Your task to perform on an android device: turn off notifications in google photos Image 0: 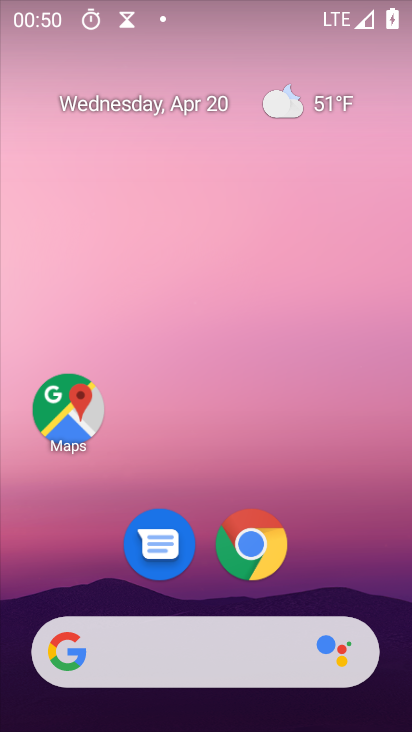
Step 0: drag from (309, 593) to (330, 77)
Your task to perform on an android device: turn off notifications in google photos Image 1: 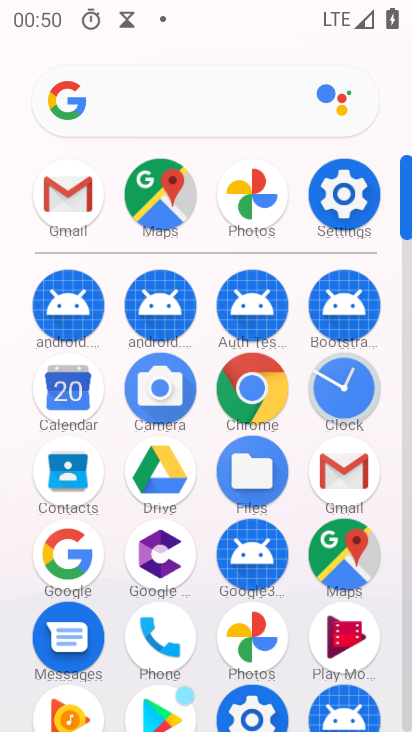
Step 1: click (265, 205)
Your task to perform on an android device: turn off notifications in google photos Image 2: 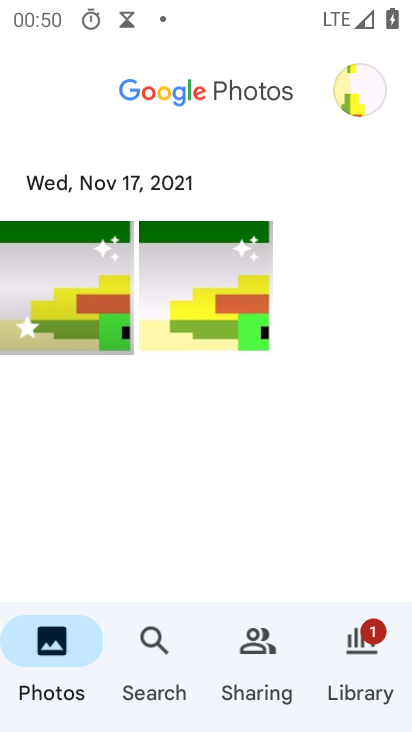
Step 2: click (344, 92)
Your task to perform on an android device: turn off notifications in google photos Image 3: 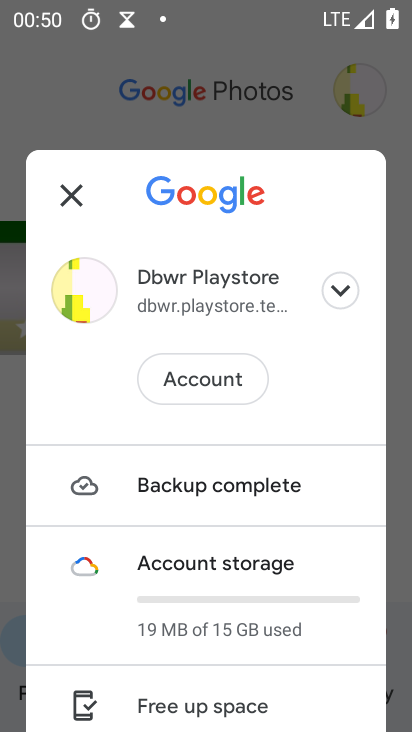
Step 3: drag from (230, 560) to (239, 335)
Your task to perform on an android device: turn off notifications in google photos Image 4: 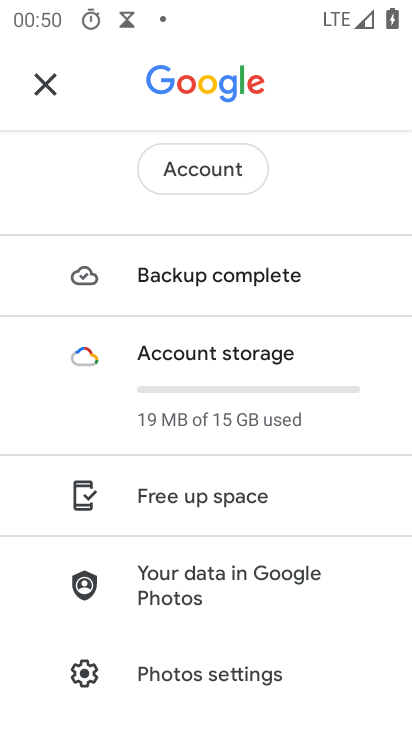
Step 4: click (182, 674)
Your task to perform on an android device: turn off notifications in google photos Image 5: 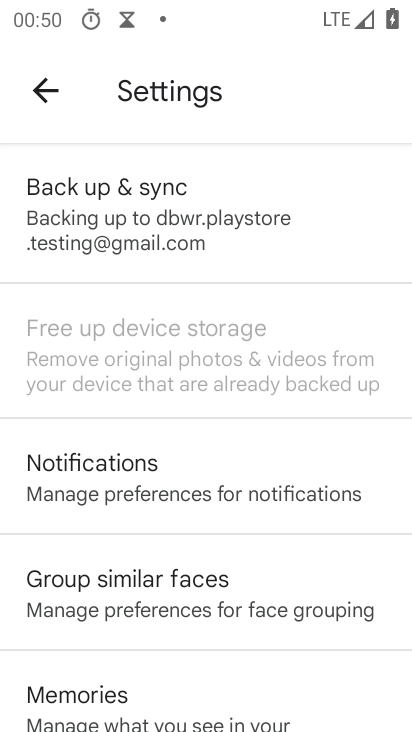
Step 5: click (146, 497)
Your task to perform on an android device: turn off notifications in google photos Image 6: 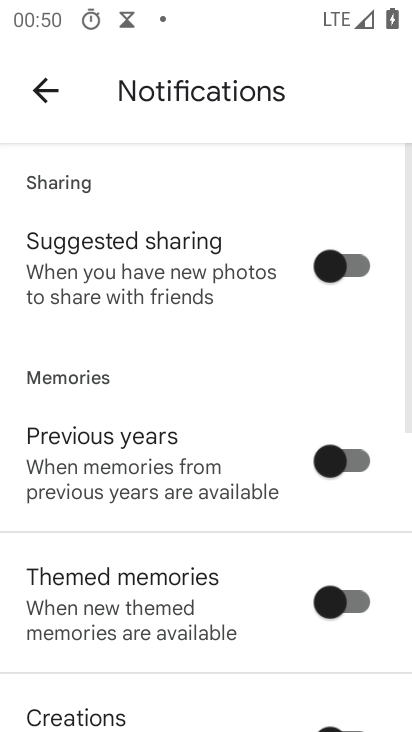
Step 6: drag from (133, 532) to (124, 404)
Your task to perform on an android device: turn off notifications in google photos Image 7: 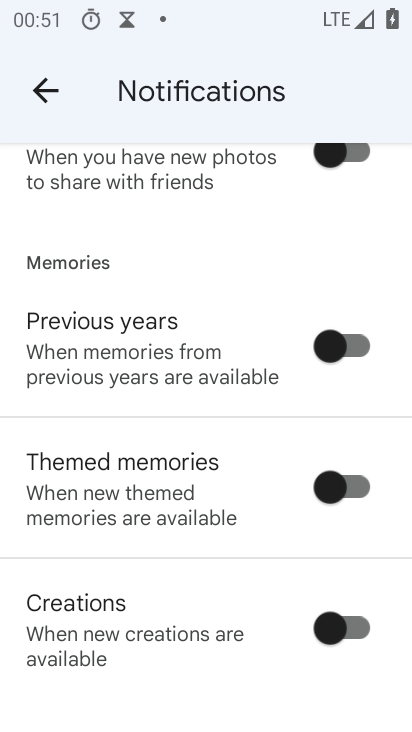
Step 7: drag from (127, 556) to (200, 730)
Your task to perform on an android device: turn off notifications in google photos Image 8: 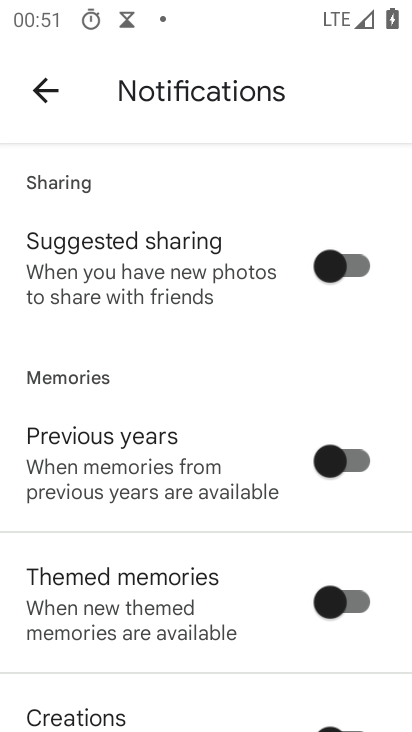
Step 8: drag from (141, 445) to (135, 618)
Your task to perform on an android device: turn off notifications in google photos Image 9: 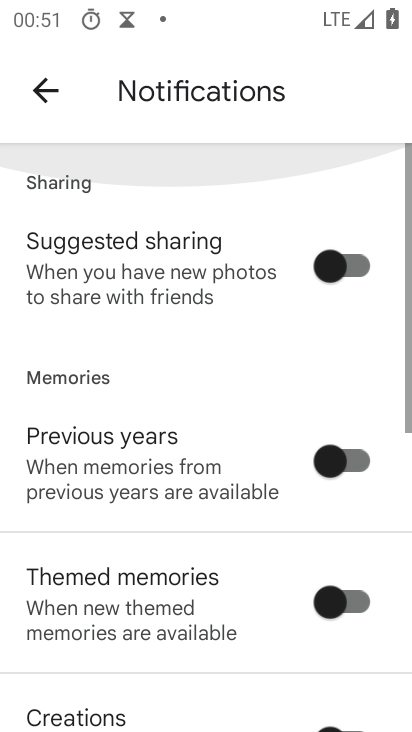
Step 9: drag from (127, 613) to (162, 276)
Your task to perform on an android device: turn off notifications in google photos Image 10: 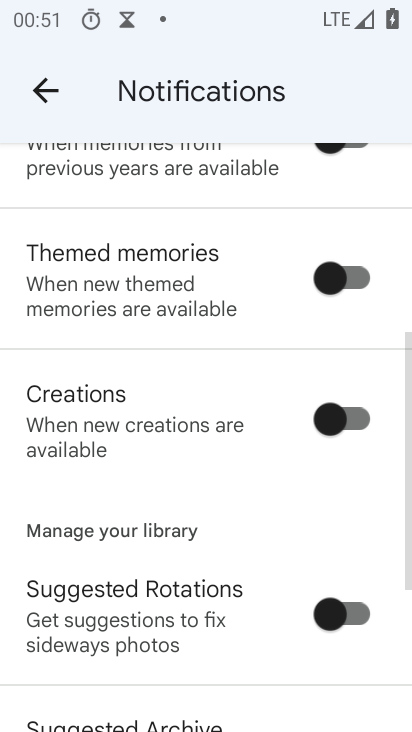
Step 10: drag from (120, 556) to (127, 308)
Your task to perform on an android device: turn off notifications in google photos Image 11: 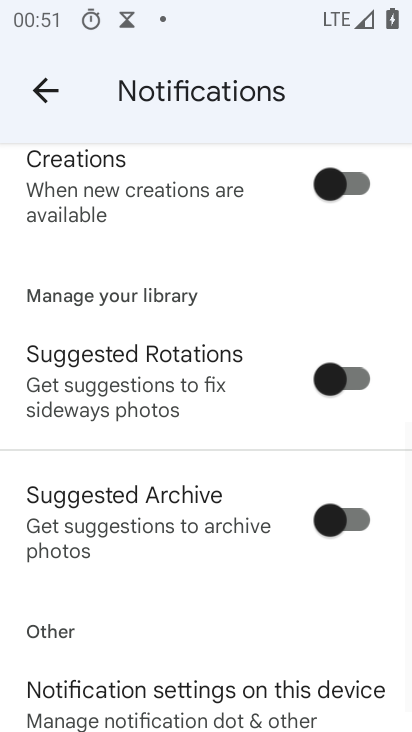
Step 11: drag from (146, 598) to (141, 327)
Your task to perform on an android device: turn off notifications in google photos Image 12: 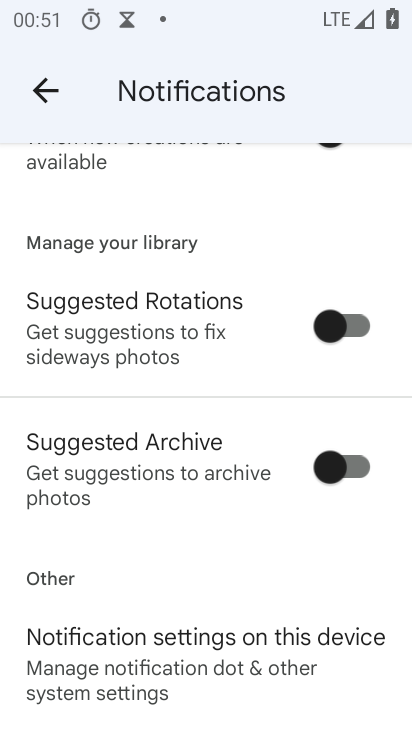
Step 12: click (206, 645)
Your task to perform on an android device: turn off notifications in google photos Image 13: 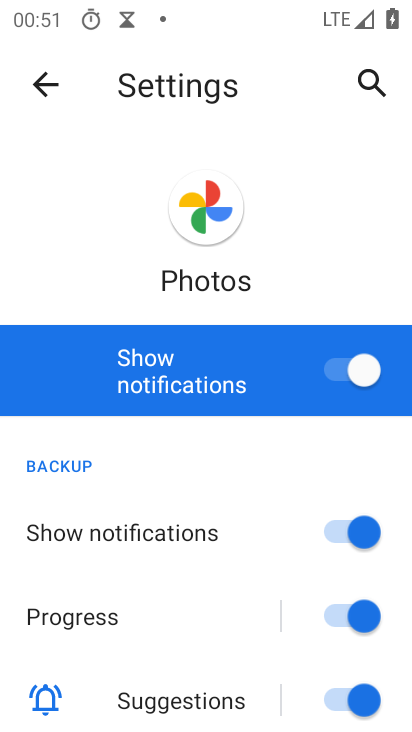
Step 13: click (330, 364)
Your task to perform on an android device: turn off notifications in google photos Image 14: 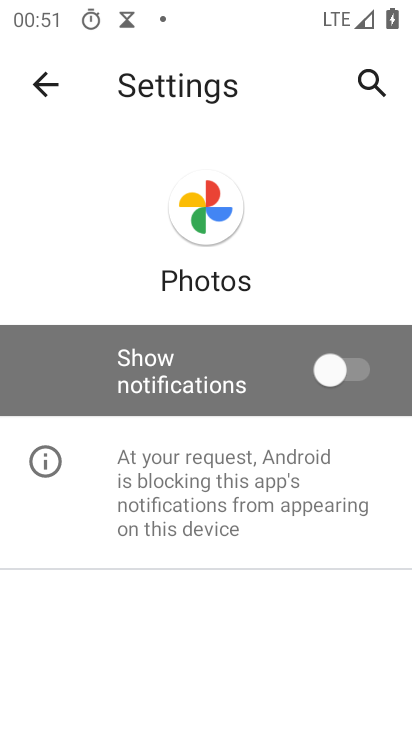
Step 14: task complete